Your task to perform on an android device: Open location settings Image 0: 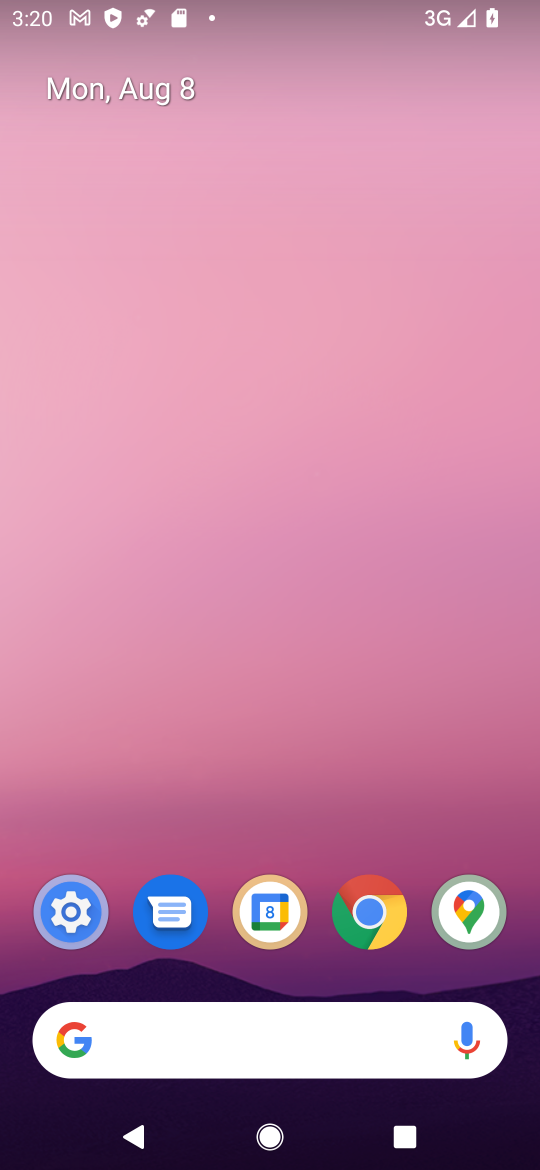
Step 0: drag from (224, 457) to (401, 120)
Your task to perform on an android device: Open location settings Image 1: 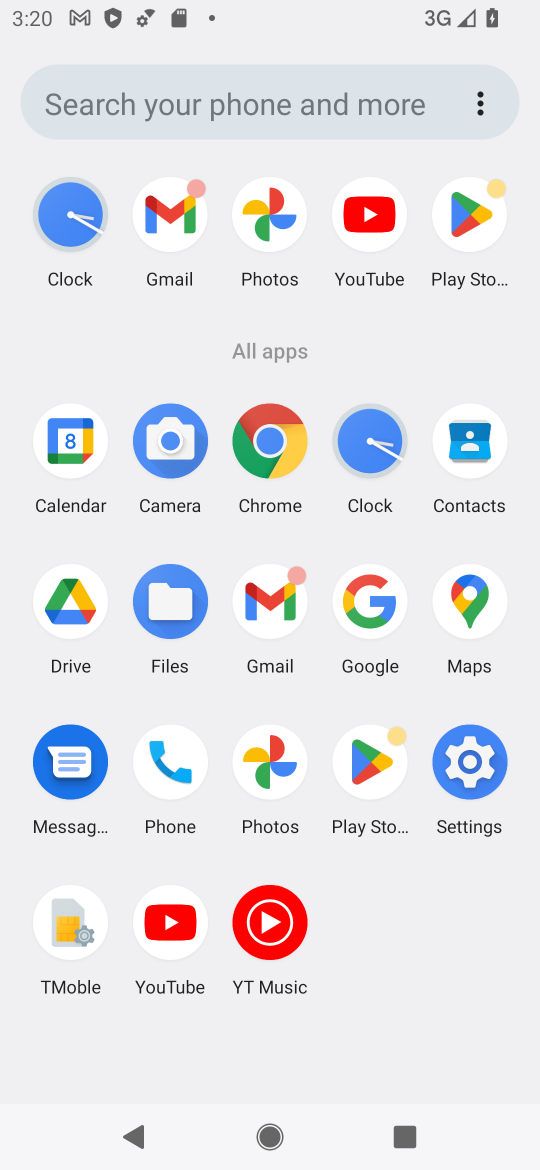
Step 1: click (454, 770)
Your task to perform on an android device: Open location settings Image 2: 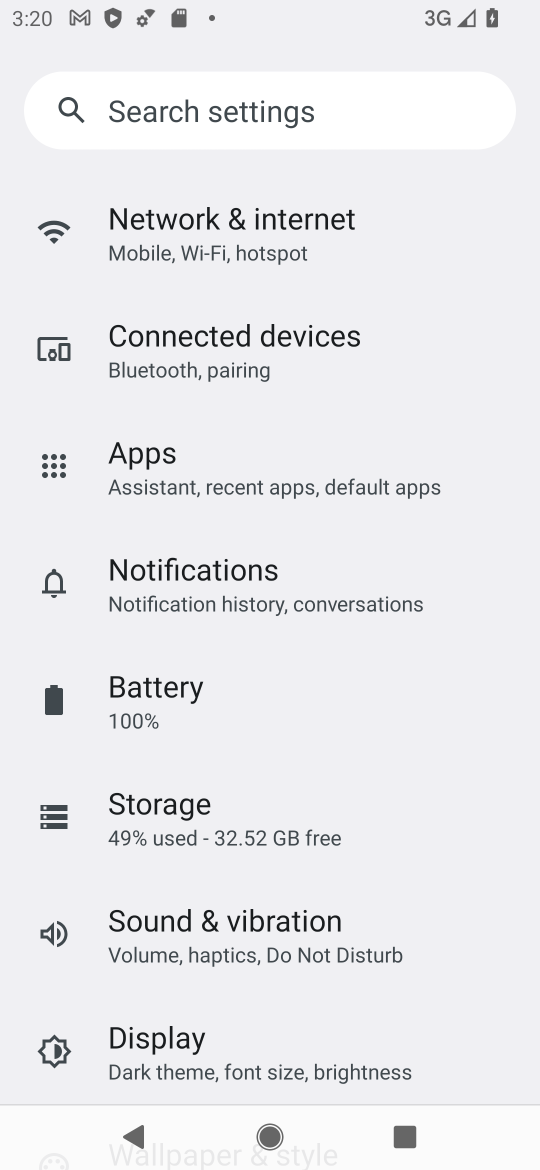
Step 2: drag from (114, 704) to (268, 279)
Your task to perform on an android device: Open location settings Image 3: 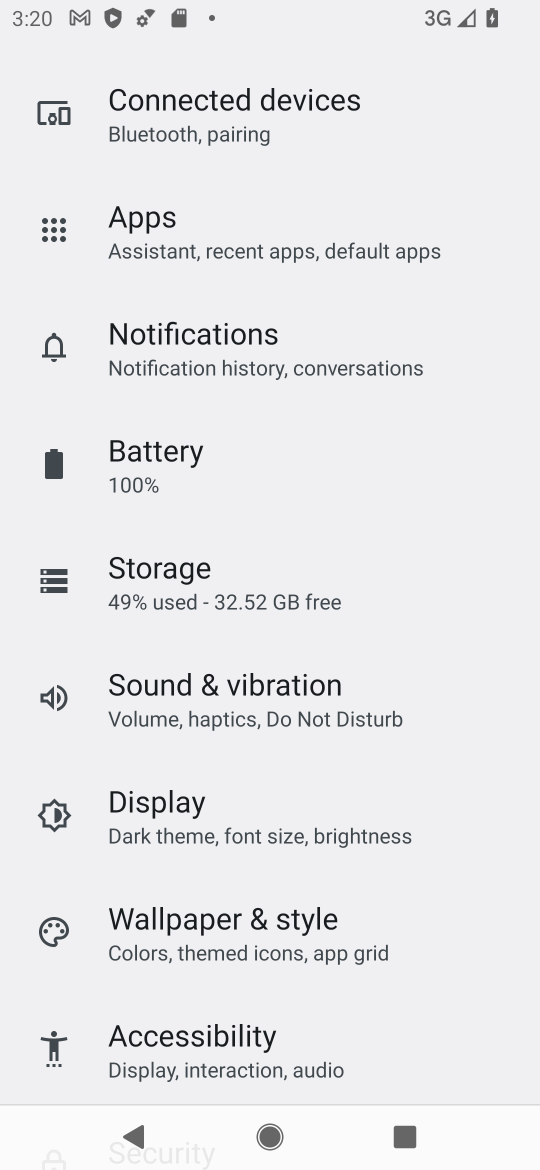
Step 3: drag from (190, 574) to (328, 220)
Your task to perform on an android device: Open location settings Image 4: 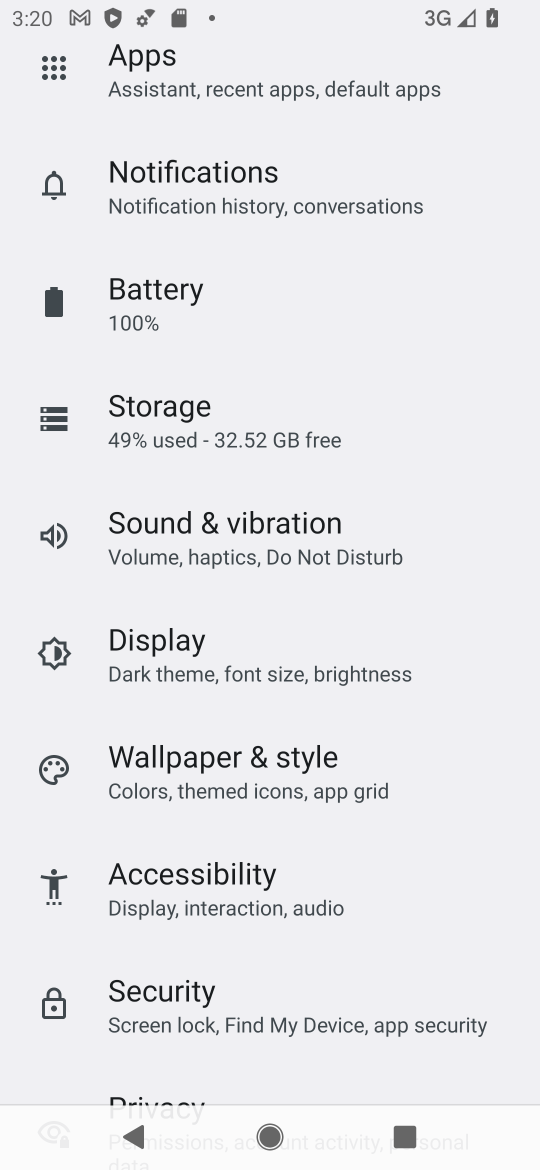
Step 4: drag from (48, 896) to (371, 178)
Your task to perform on an android device: Open location settings Image 5: 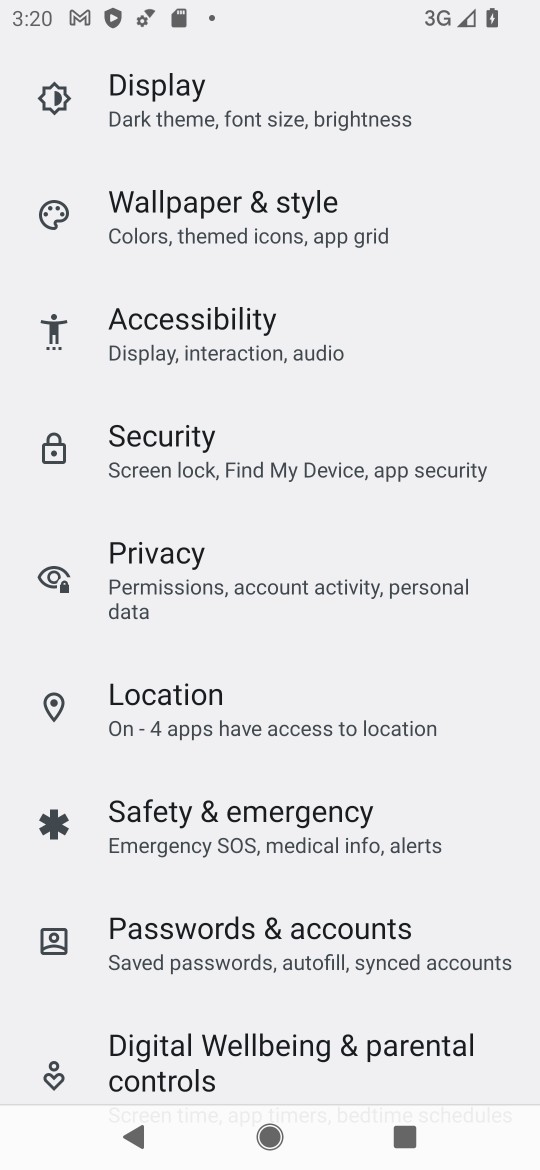
Step 5: click (197, 699)
Your task to perform on an android device: Open location settings Image 6: 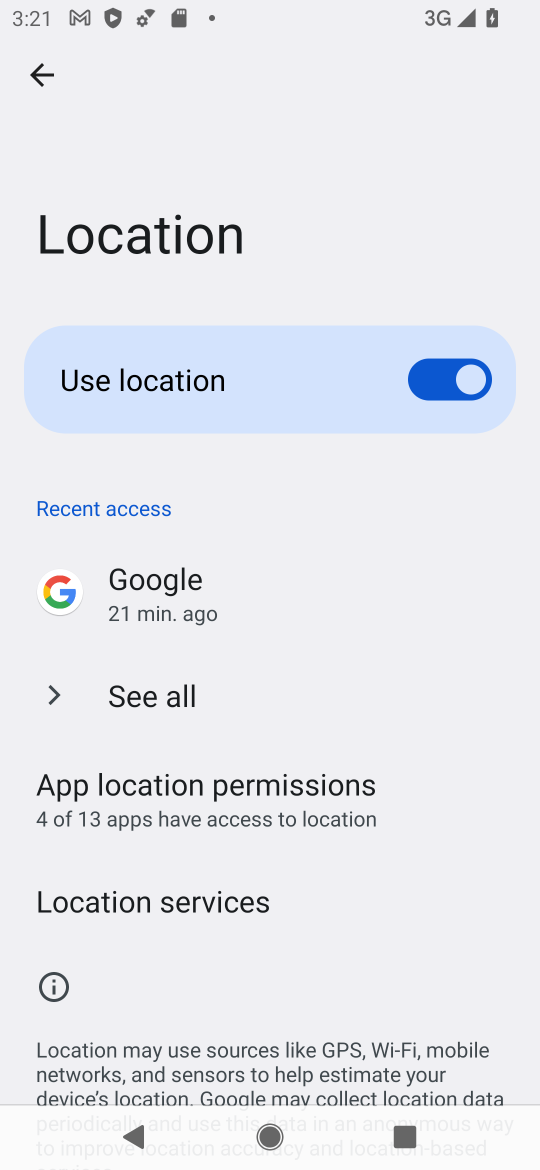
Step 6: task complete